Your task to perform on an android device: What's the news this week? Image 0: 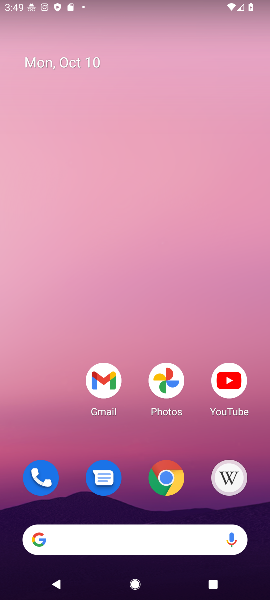
Step 0: click (40, 536)
Your task to perform on an android device: What's the news this week? Image 1: 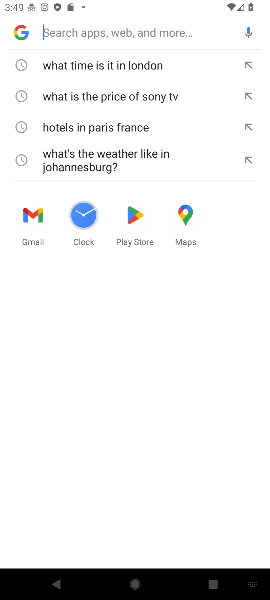
Step 1: click (22, 32)
Your task to perform on an android device: What's the news this week? Image 2: 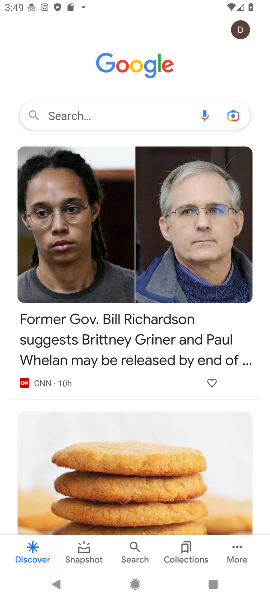
Step 2: task complete